Your task to perform on an android device: make emails show in primary in the gmail app Image 0: 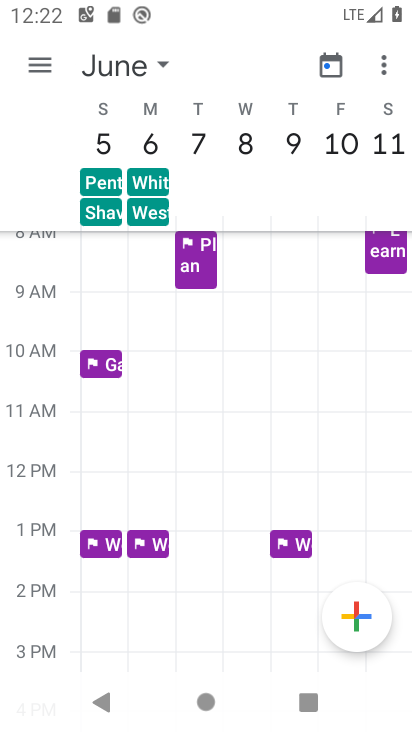
Step 0: press home button
Your task to perform on an android device: make emails show in primary in the gmail app Image 1: 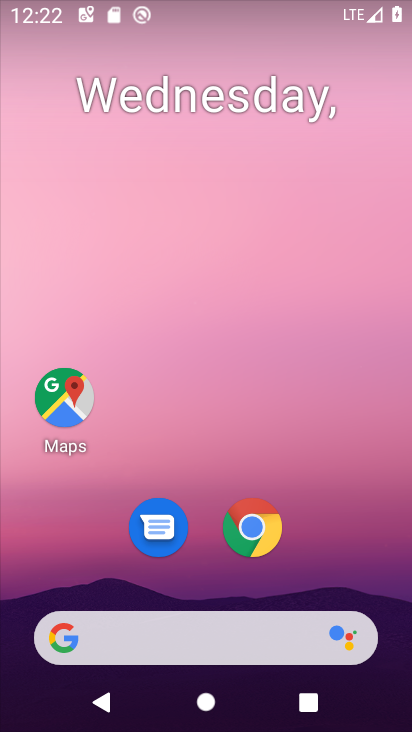
Step 1: drag from (306, 631) to (300, 58)
Your task to perform on an android device: make emails show in primary in the gmail app Image 2: 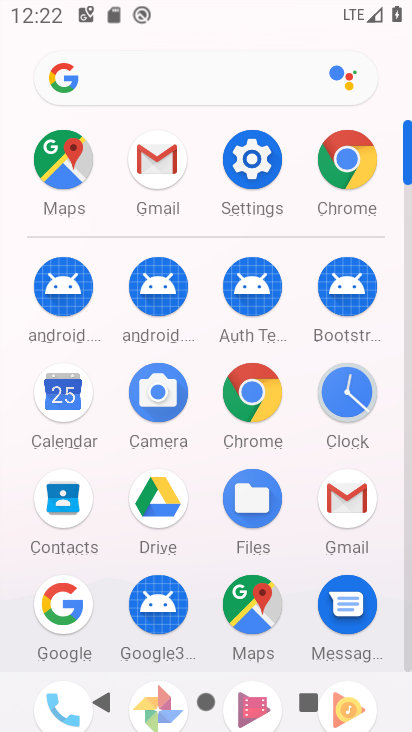
Step 2: click (353, 498)
Your task to perform on an android device: make emails show in primary in the gmail app Image 3: 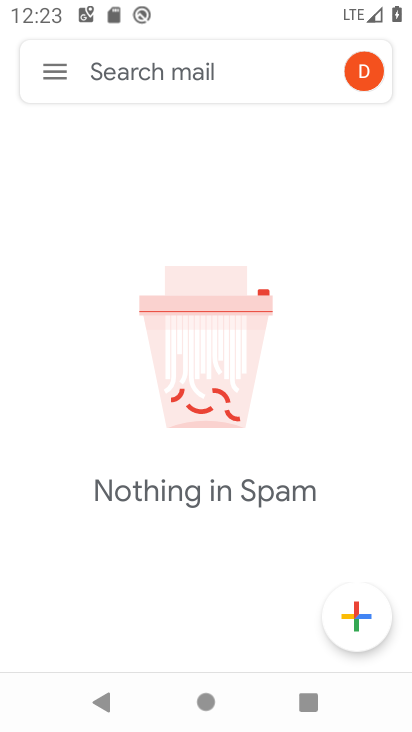
Step 3: click (59, 74)
Your task to perform on an android device: make emails show in primary in the gmail app Image 4: 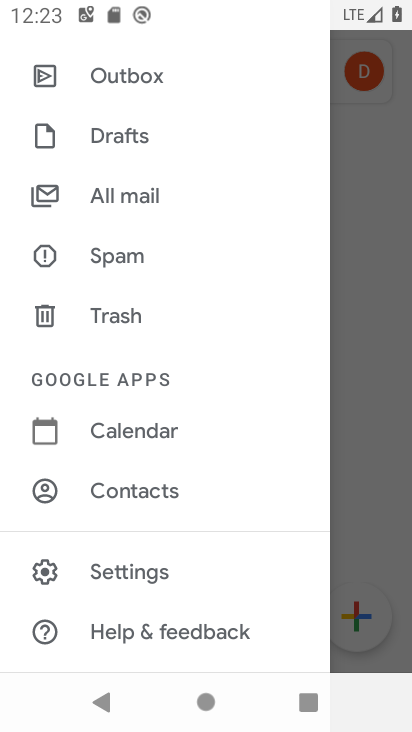
Step 4: click (162, 572)
Your task to perform on an android device: make emails show in primary in the gmail app Image 5: 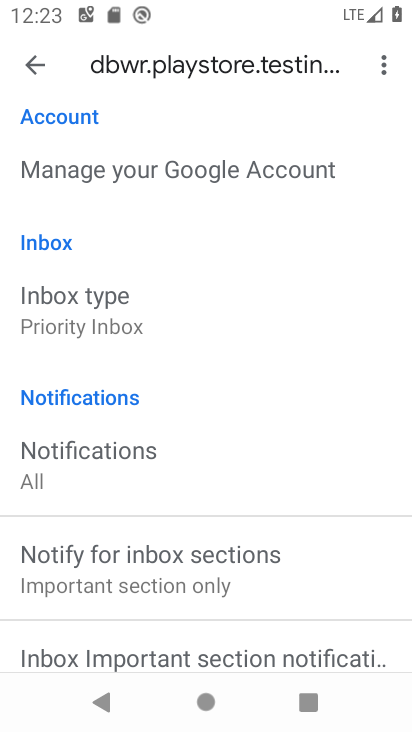
Step 5: click (120, 308)
Your task to perform on an android device: make emails show in primary in the gmail app Image 6: 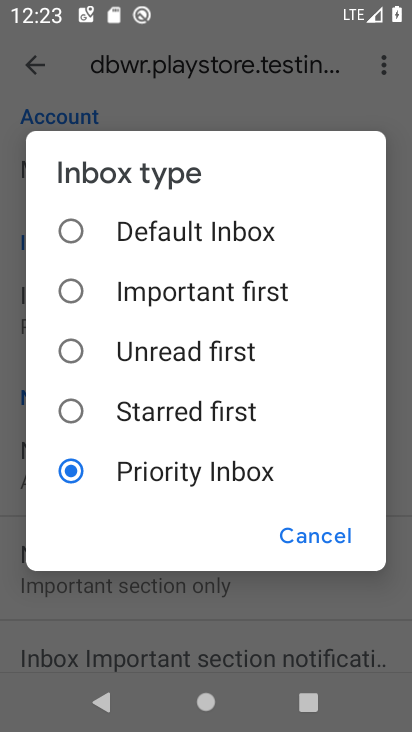
Step 6: click (66, 229)
Your task to perform on an android device: make emails show in primary in the gmail app Image 7: 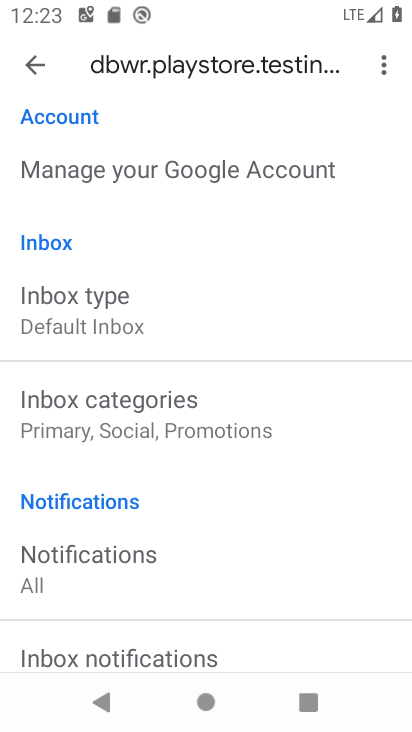
Step 7: task complete